Your task to perform on an android device: uninstall "Indeed Job Search" Image 0: 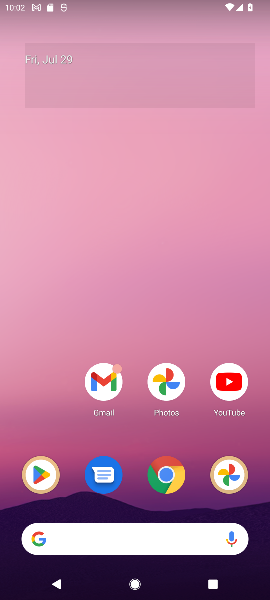
Step 0: drag from (135, 421) to (180, 18)
Your task to perform on an android device: uninstall "Indeed Job Search" Image 1: 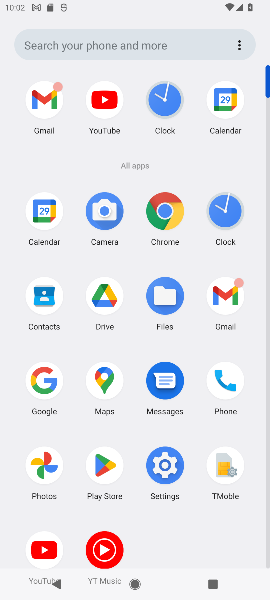
Step 1: click (110, 470)
Your task to perform on an android device: uninstall "Indeed Job Search" Image 2: 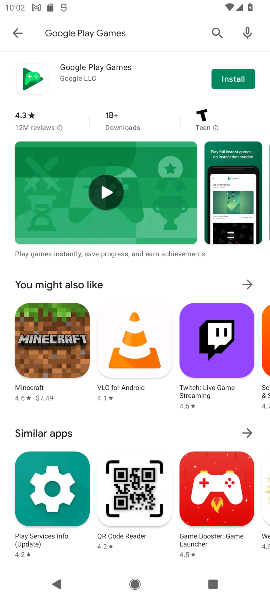
Step 2: click (173, 29)
Your task to perform on an android device: uninstall "Indeed Job Search" Image 3: 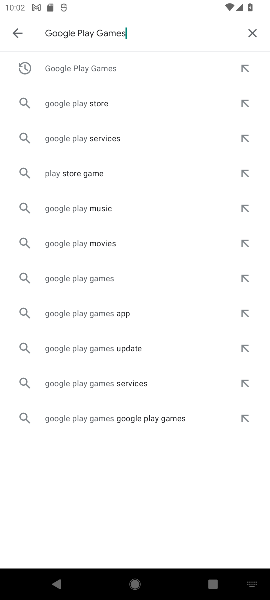
Step 3: click (254, 31)
Your task to perform on an android device: uninstall "Indeed Job Search" Image 4: 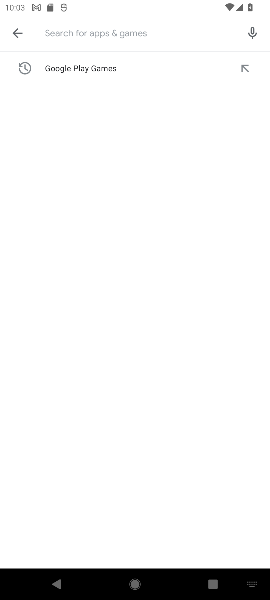
Step 4: type "Indeed Job Search"
Your task to perform on an android device: uninstall "Indeed Job Search" Image 5: 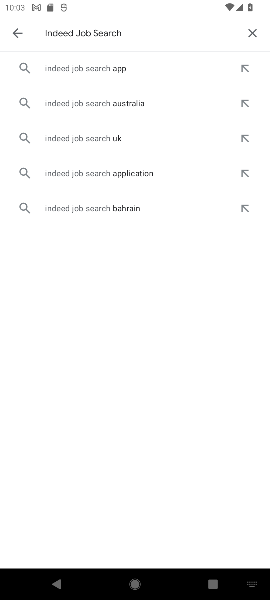
Step 5: press enter
Your task to perform on an android device: uninstall "Indeed Job Search" Image 6: 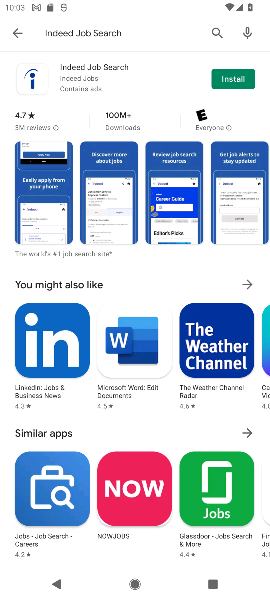
Step 6: task complete